Your task to perform on an android device: open app "Walmart Shopping & Grocery" (install if not already installed), go to login, and select forgot password Image 0: 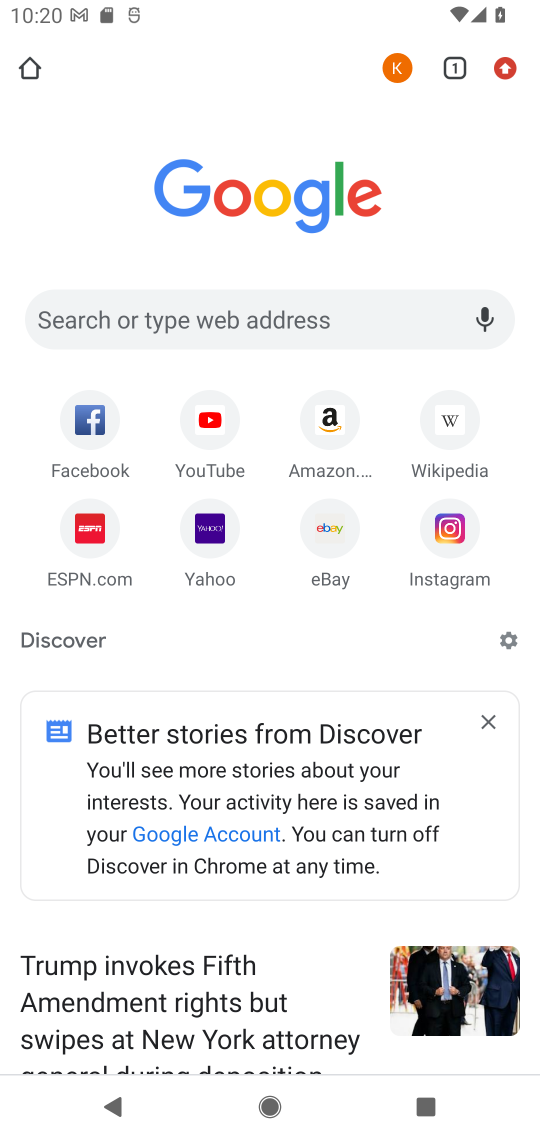
Step 0: press home button
Your task to perform on an android device: open app "Walmart Shopping & Grocery" (install if not already installed), go to login, and select forgot password Image 1: 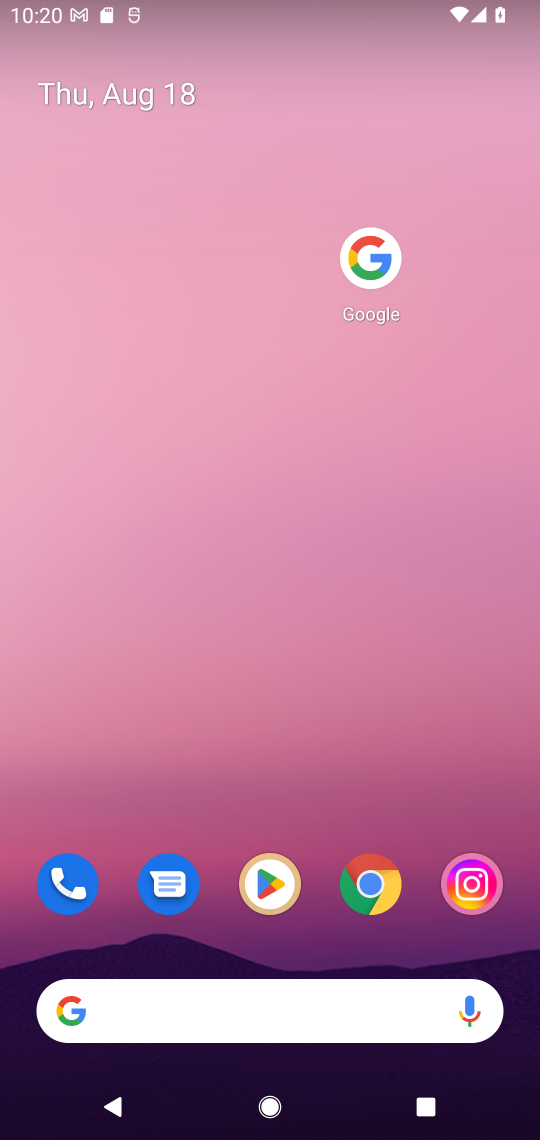
Step 1: click (268, 897)
Your task to perform on an android device: open app "Walmart Shopping & Grocery" (install if not already installed), go to login, and select forgot password Image 2: 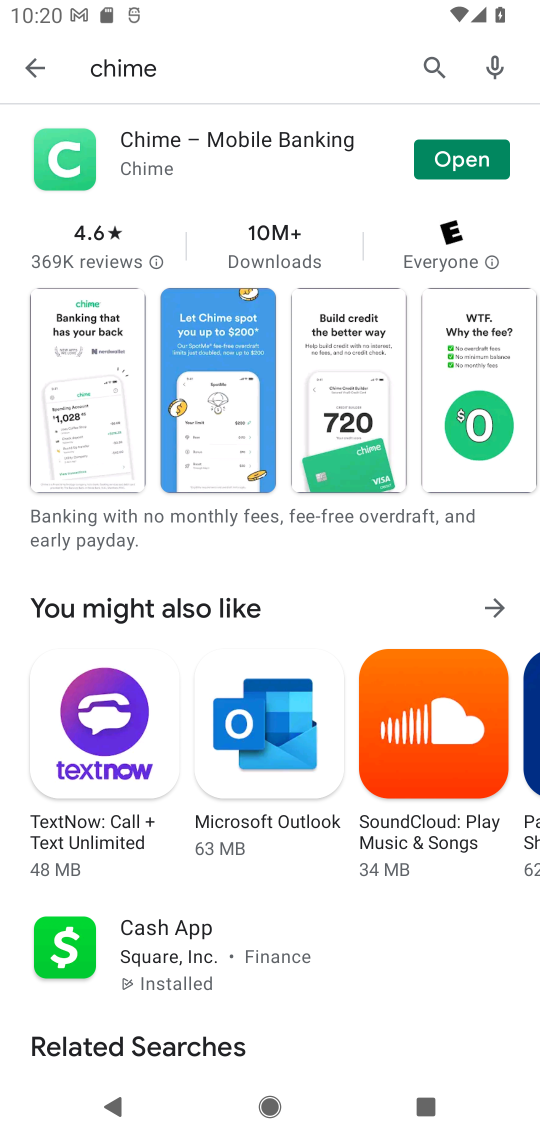
Step 2: click (429, 61)
Your task to perform on an android device: open app "Walmart Shopping & Grocery" (install if not already installed), go to login, and select forgot password Image 3: 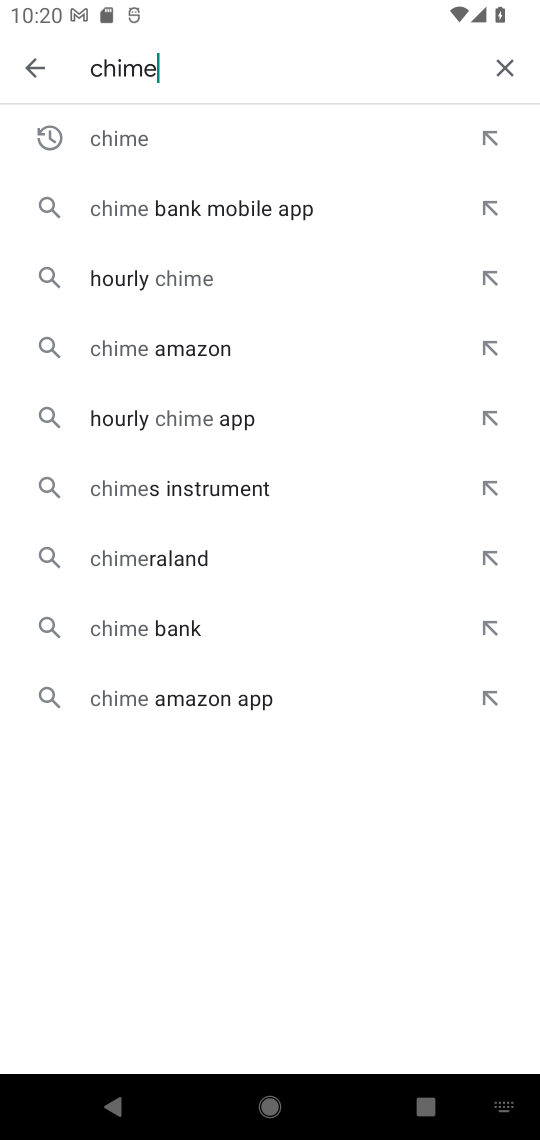
Step 3: click (507, 65)
Your task to perform on an android device: open app "Walmart Shopping & Grocery" (install if not already installed), go to login, and select forgot password Image 4: 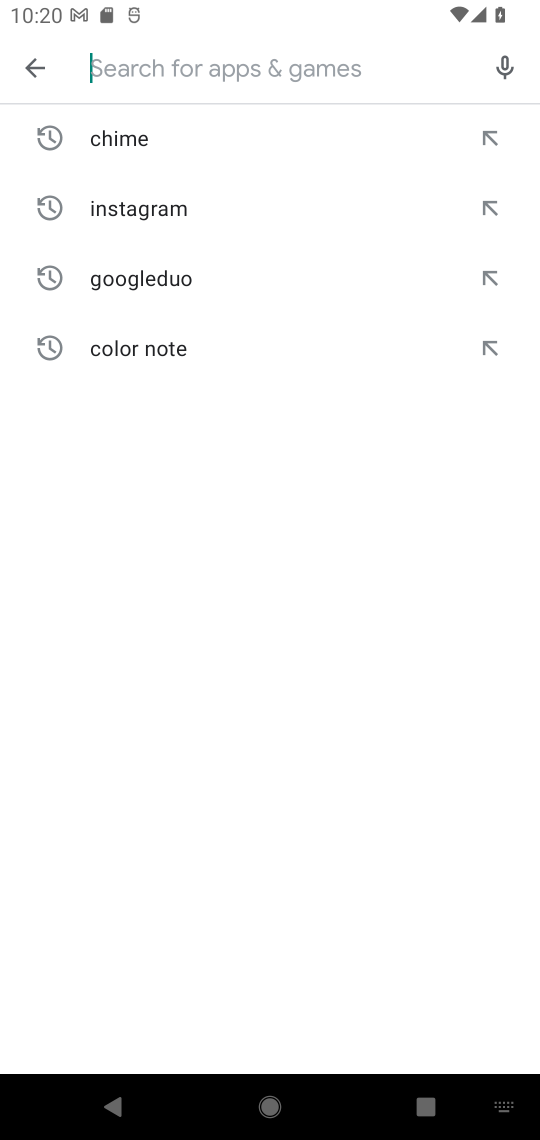
Step 4: type "waalmart"
Your task to perform on an android device: open app "Walmart Shopping & Grocery" (install if not already installed), go to login, and select forgot password Image 5: 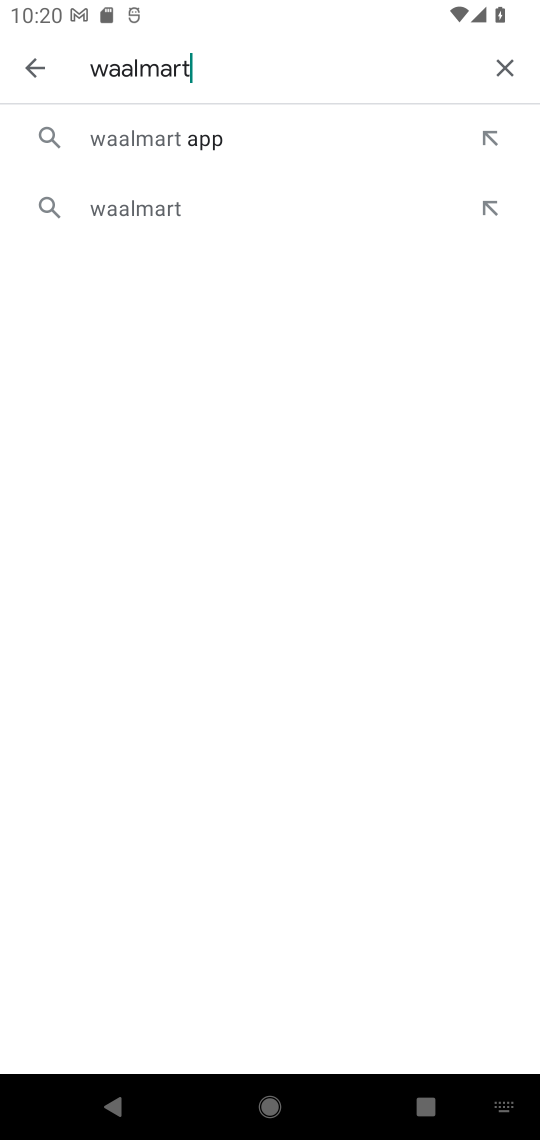
Step 5: click (247, 169)
Your task to perform on an android device: open app "Walmart Shopping & Grocery" (install if not already installed), go to login, and select forgot password Image 6: 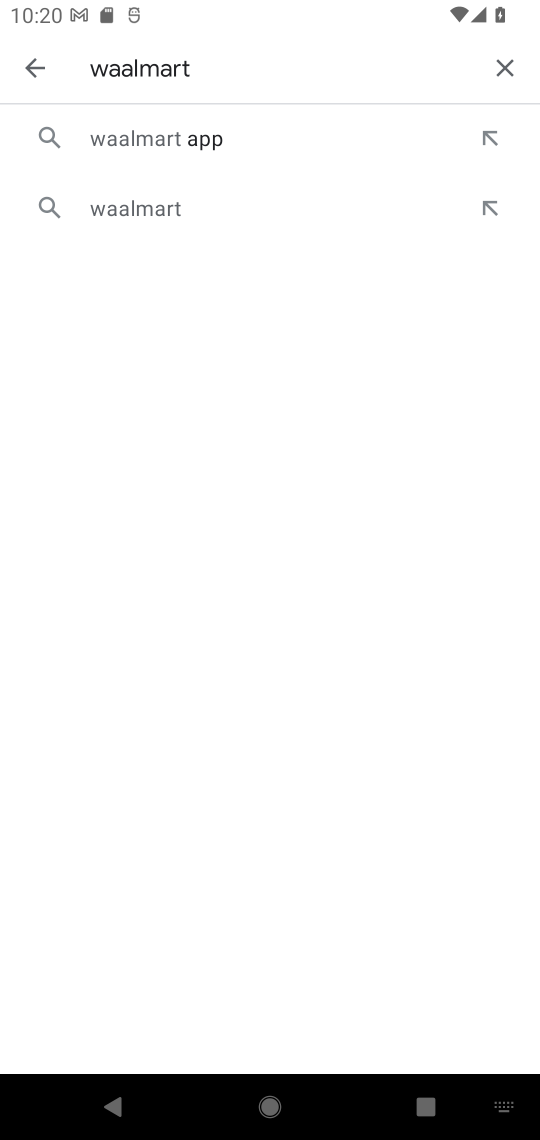
Step 6: click (247, 169)
Your task to perform on an android device: open app "Walmart Shopping & Grocery" (install if not already installed), go to login, and select forgot password Image 7: 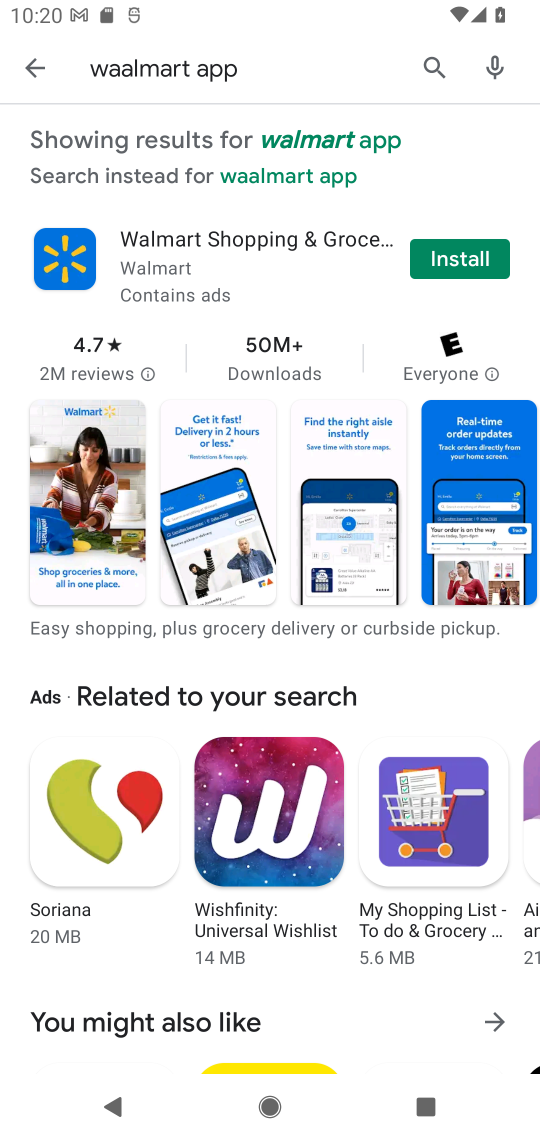
Step 7: click (463, 260)
Your task to perform on an android device: open app "Walmart Shopping & Grocery" (install if not already installed), go to login, and select forgot password Image 8: 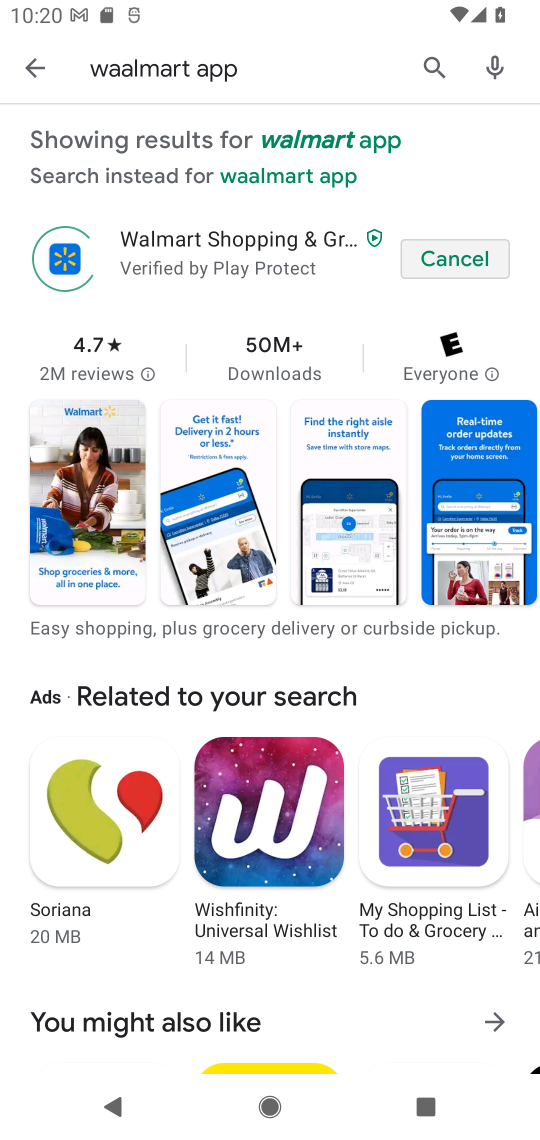
Step 8: task complete